Your task to perform on an android device: Open settings Image 0: 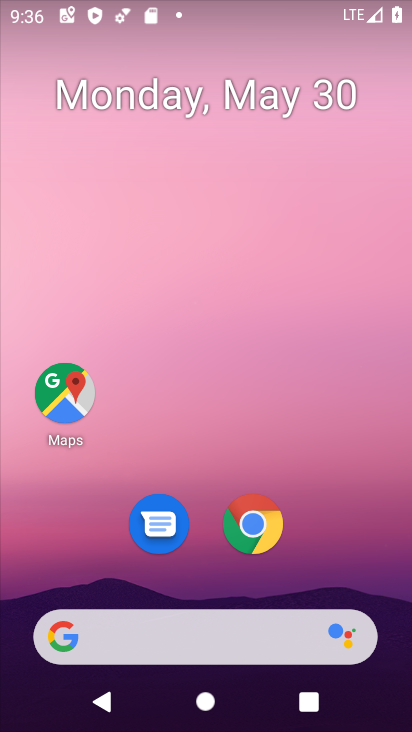
Step 0: drag from (321, 527) to (307, 44)
Your task to perform on an android device: Open settings Image 1: 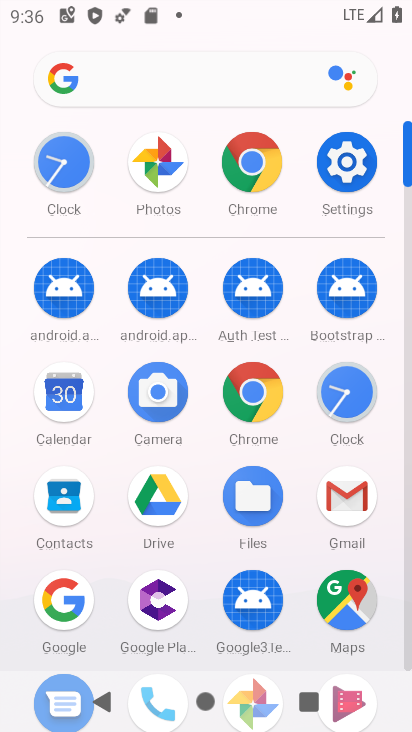
Step 1: click (342, 156)
Your task to perform on an android device: Open settings Image 2: 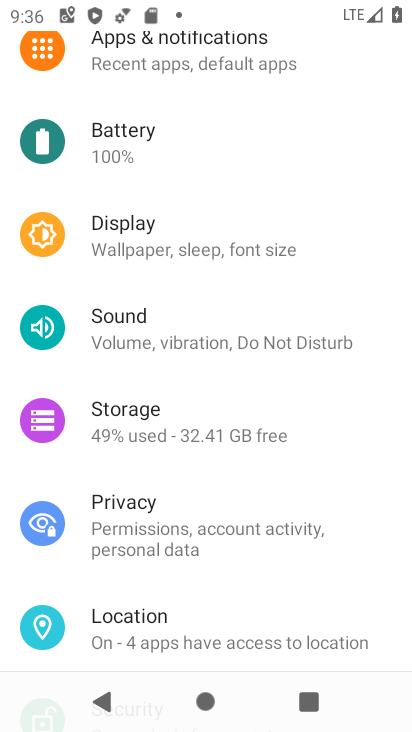
Step 2: task complete